Your task to perform on an android device: toggle improve location accuracy Image 0: 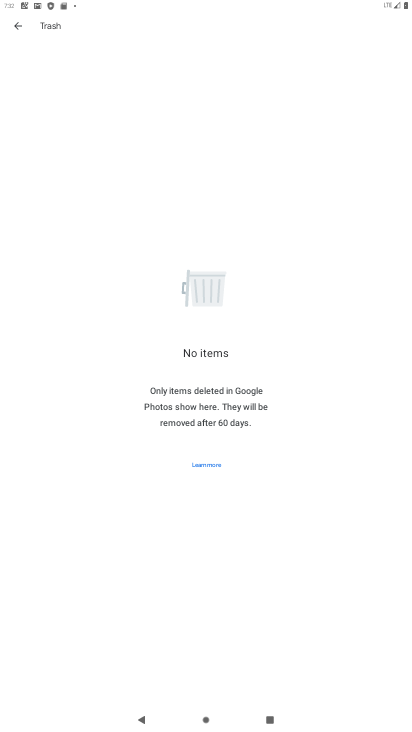
Step 0: press back button
Your task to perform on an android device: toggle improve location accuracy Image 1: 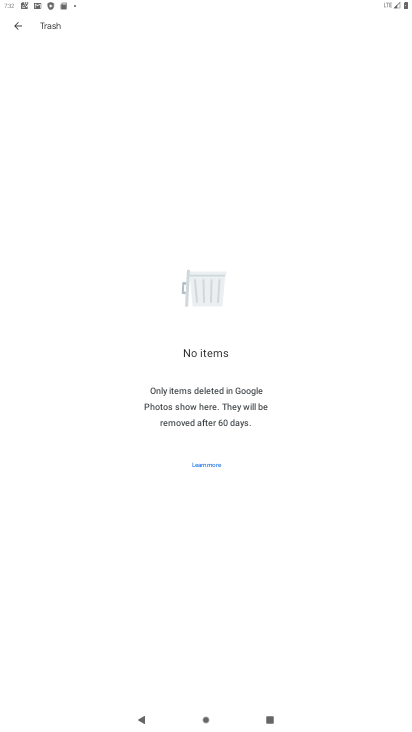
Step 1: press back button
Your task to perform on an android device: toggle improve location accuracy Image 2: 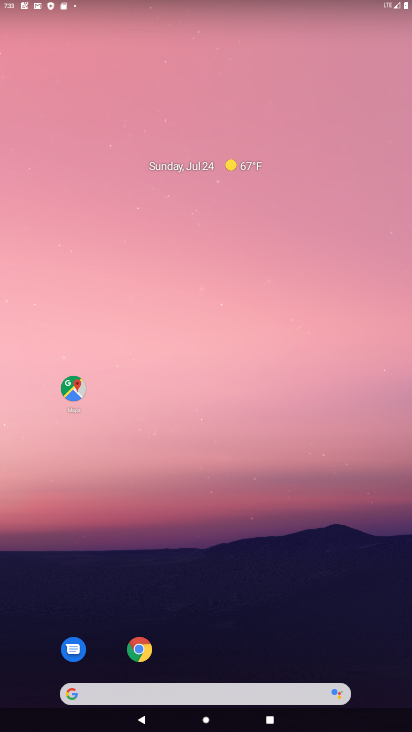
Step 2: drag from (190, 671) to (38, 10)
Your task to perform on an android device: toggle improve location accuracy Image 3: 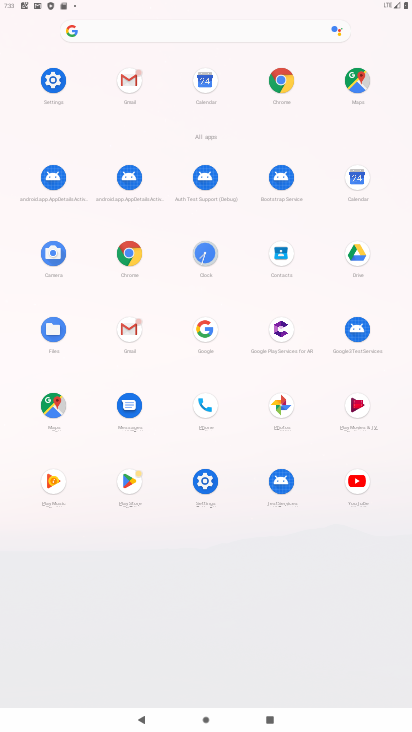
Step 3: click (192, 478)
Your task to perform on an android device: toggle improve location accuracy Image 4: 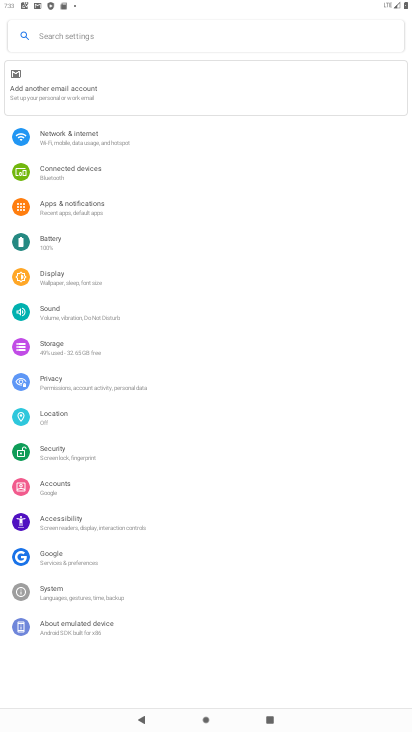
Step 4: click (51, 419)
Your task to perform on an android device: toggle improve location accuracy Image 5: 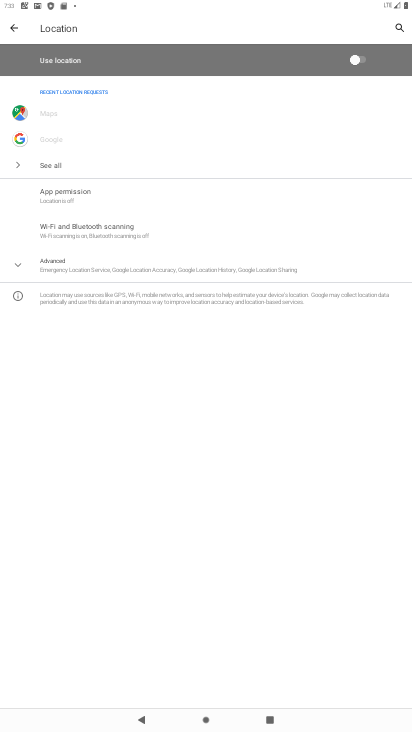
Step 5: click (46, 272)
Your task to perform on an android device: toggle improve location accuracy Image 6: 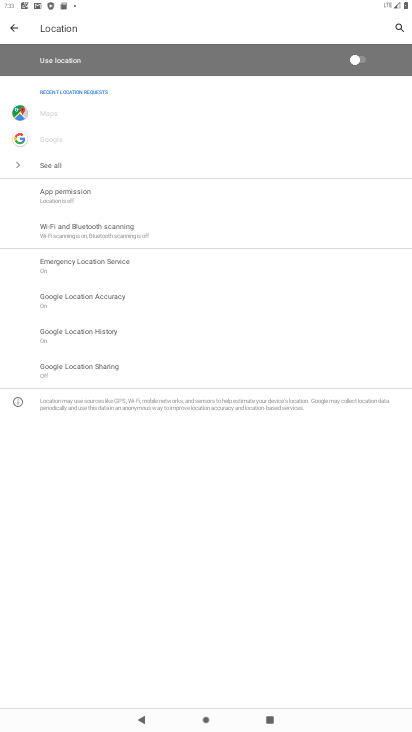
Step 6: click (46, 272)
Your task to perform on an android device: toggle improve location accuracy Image 7: 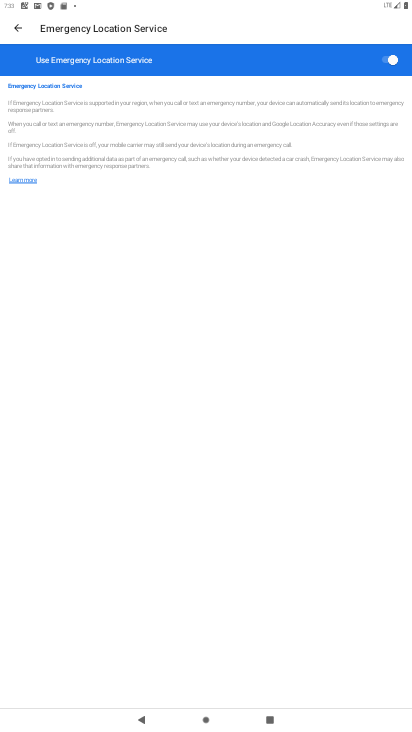
Step 7: click (16, 24)
Your task to perform on an android device: toggle improve location accuracy Image 8: 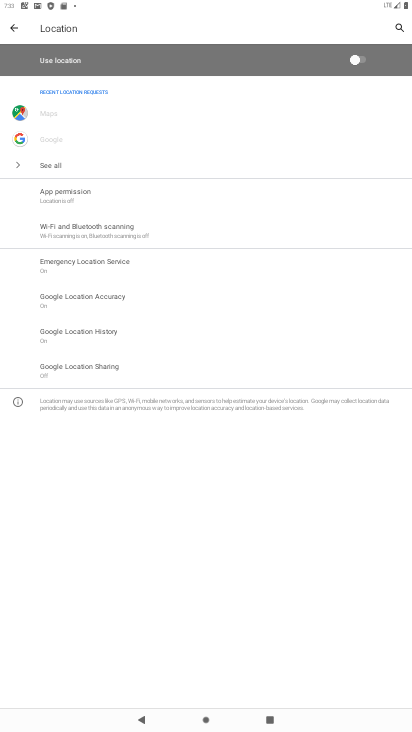
Step 8: click (92, 301)
Your task to perform on an android device: toggle improve location accuracy Image 9: 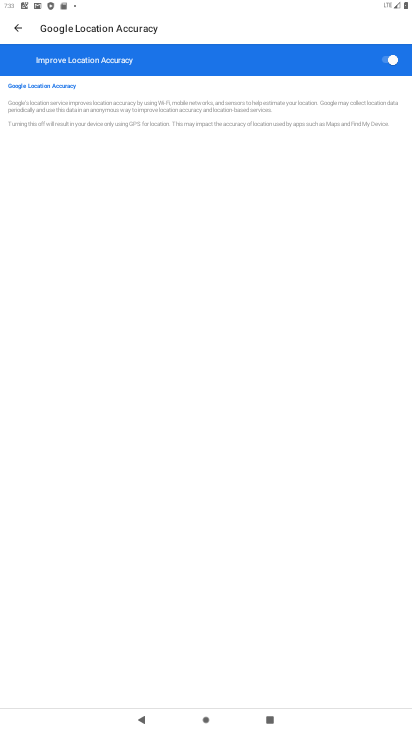
Step 9: click (390, 60)
Your task to perform on an android device: toggle improve location accuracy Image 10: 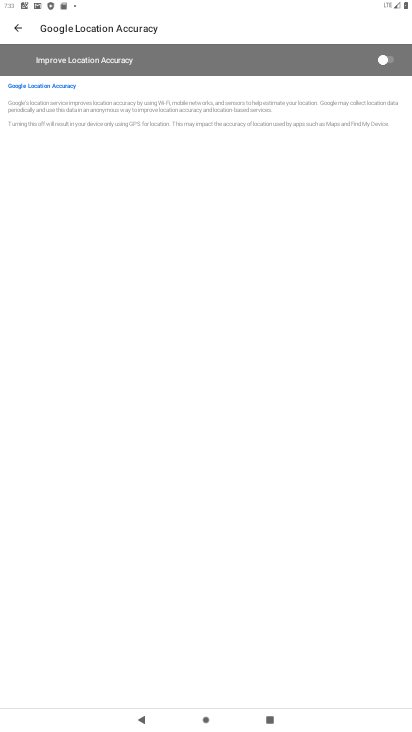
Step 10: task complete